Your task to perform on an android device: Clear the cart on walmart. Image 0: 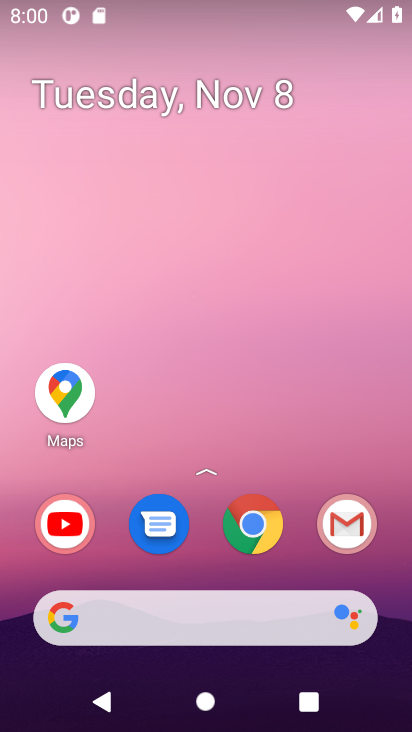
Step 0: click (247, 534)
Your task to perform on an android device: Clear the cart on walmart. Image 1: 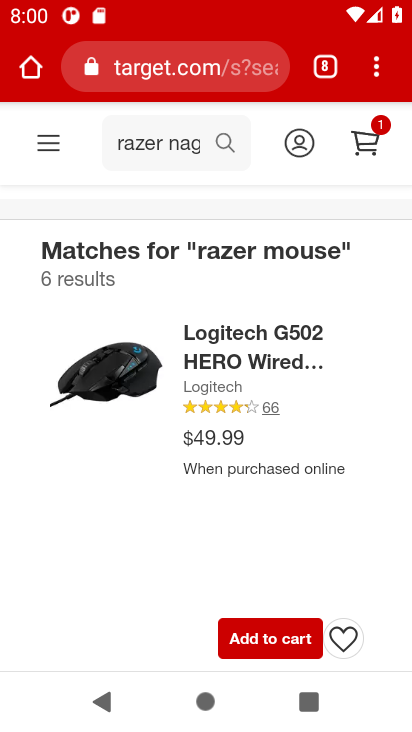
Step 1: click (193, 75)
Your task to perform on an android device: Clear the cart on walmart. Image 2: 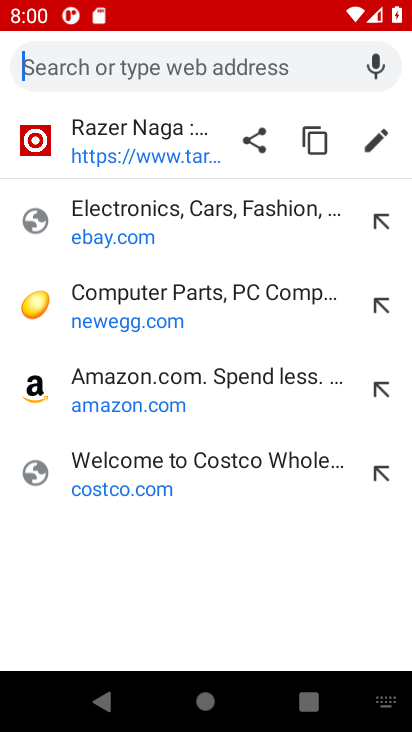
Step 2: type "walmart.com"
Your task to perform on an android device: Clear the cart on walmart. Image 3: 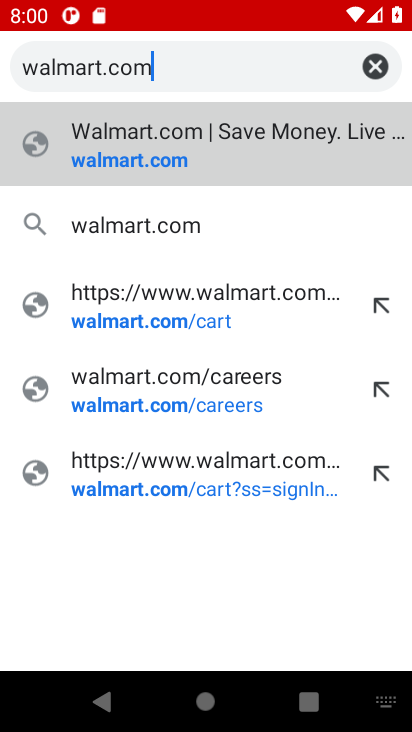
Step 3: click (123, 171)
Your task to perform on an android device: Clear the cart on walmart. Image 4: 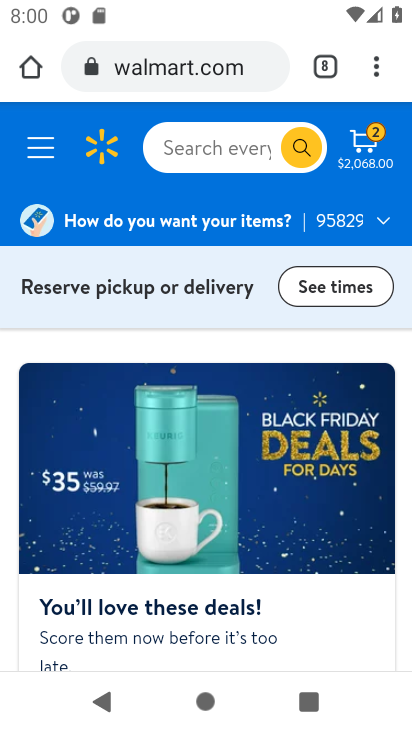
Step 4: click (361, 142)
Your task to perform on an android device: Clear the cart on walmart. Image 5: 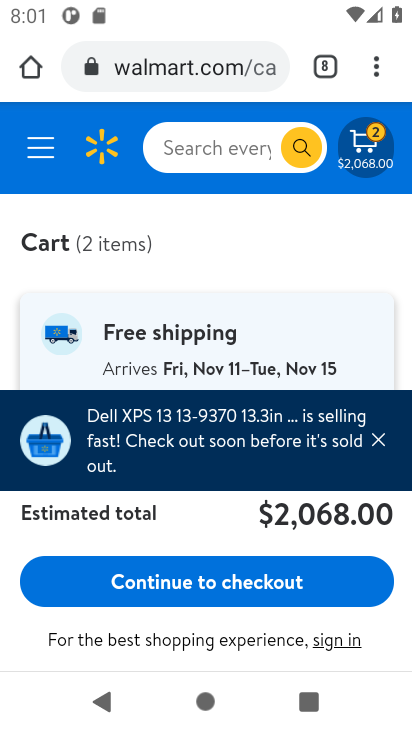
Step 5: drag from (206, 363) to (212, 144)
Your task to perform on an android device: Clear the cart on walmart. Image 6: 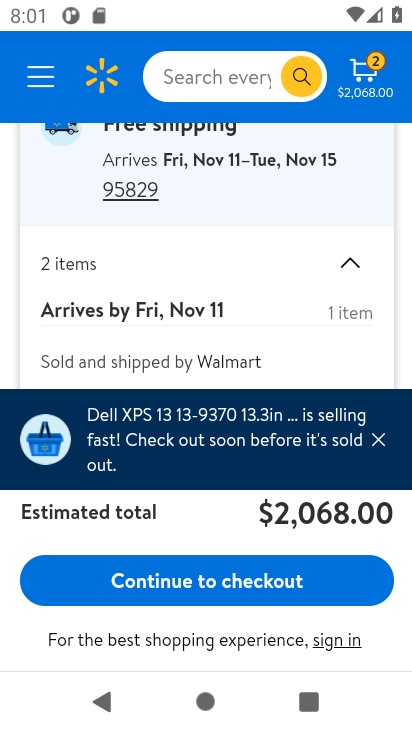
Step 6: click (371, 450)
Your task to perform on an android device: Clear the cart on walmart. Image 7: 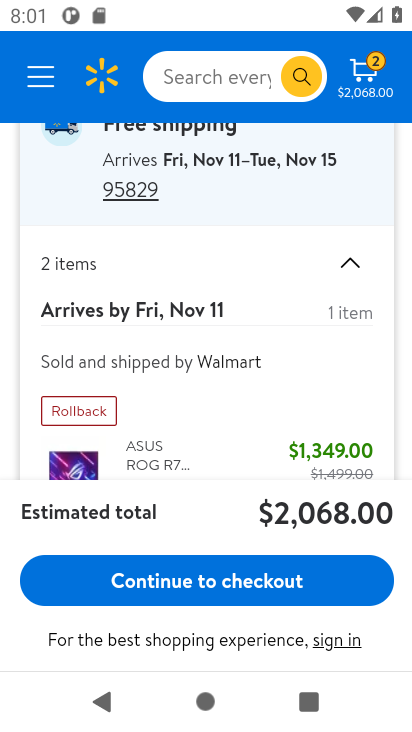
Step 7: drag from (202, 449) to (193, 215)
Your task to perform on an android device: Clear the cart on walmart. Image 8: 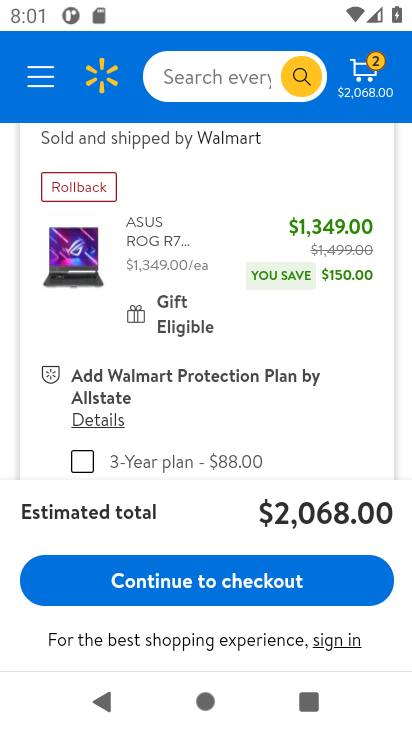
Step 8: drag from (160, 411) to (154, 218)
Your task to perform on an android device: Clear the cart on walmart. Image 9: 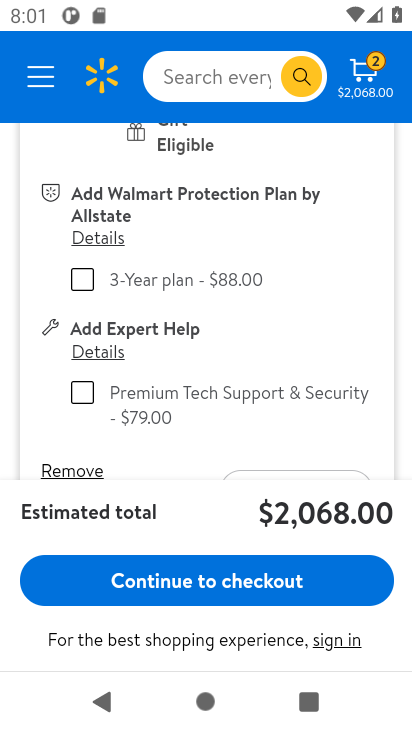
Step 9: drag from (181, 317) to (181, 263)
Your task to perform on an android device: Clear the cart on walmart. Image 10: 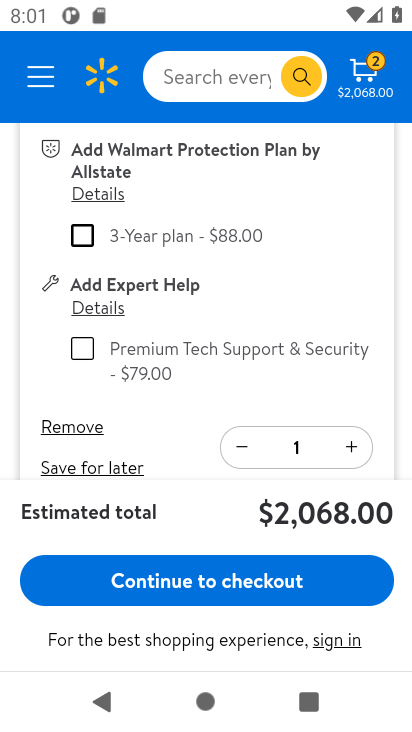
Step 10: click (87, 431)
Your task to perform on an android device: Clear the cart on walmart. Image 11: 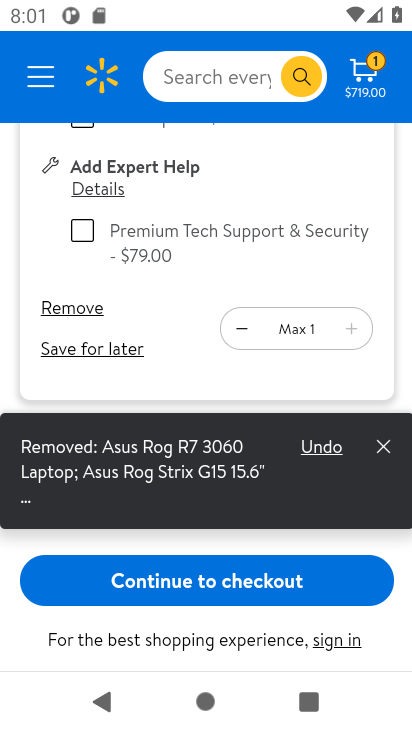
Step 11: click (67, 316)
Your task to perform on an android device: Clear the cart on walmart. Image 12: 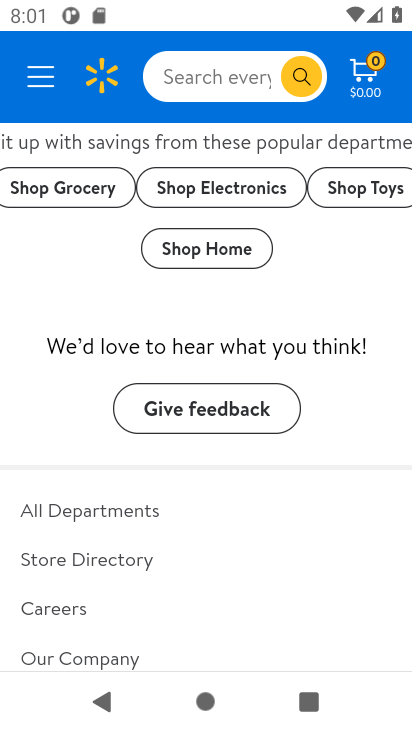
Step 12: task complete